Your task to perform on an android device: open a bookmark in the chrome app Image 0: 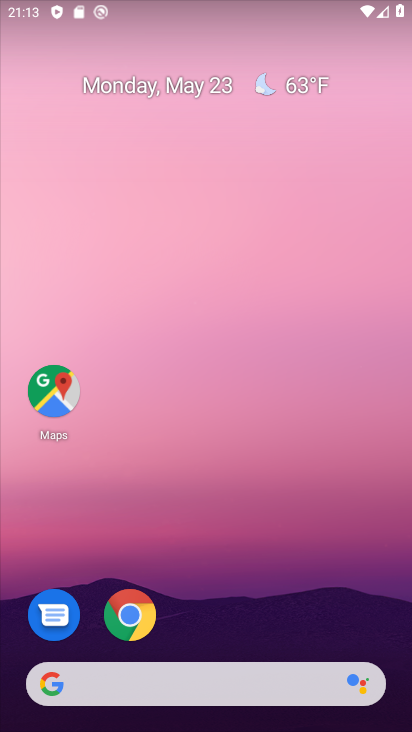
Step 0: click (135, 615)
Your task to perform on an android device: open a bookmark in the chrome app Image 1: 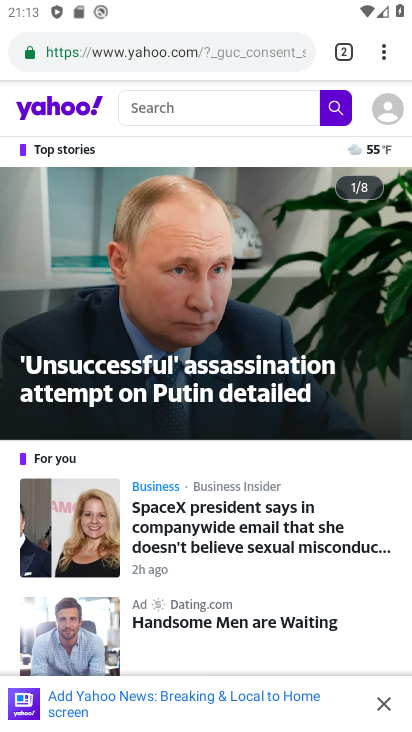
Step 1: click (373, 56)
Your task to perform on an android device: open a bookmark in the chrome app Image 2: 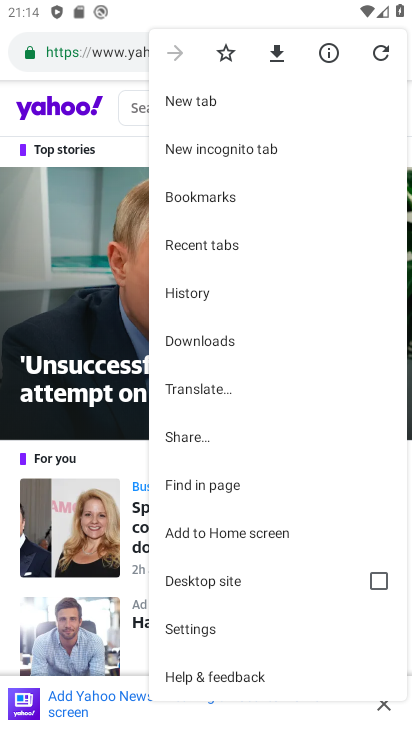
Step 2: click (204, 623)
Your task to perform on an android device: open a bookmark in the chrome app Image 3: 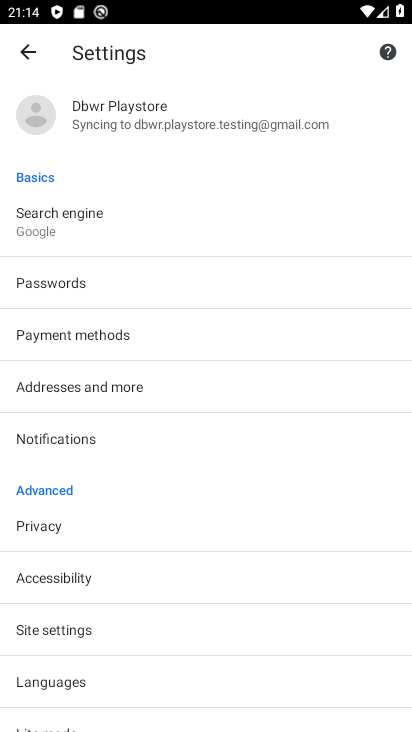
Step 3: press back button
Your task to perform on an android device: open a bookmark in the chrome app Image 4: 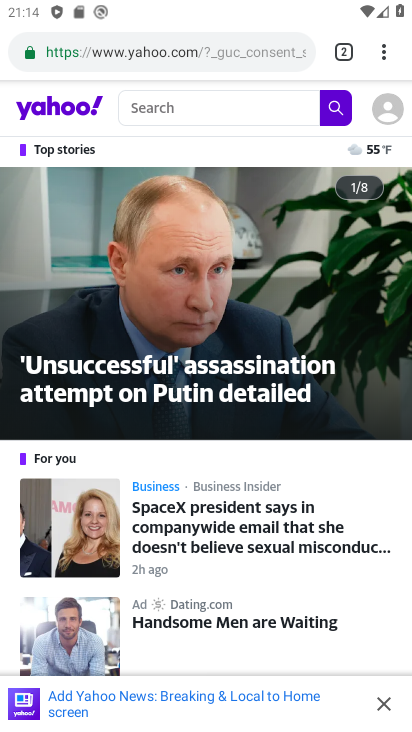
Step 4: click (378, 54)
Your task to perform on an android device: open a bookmark in the chrome app Image 5: 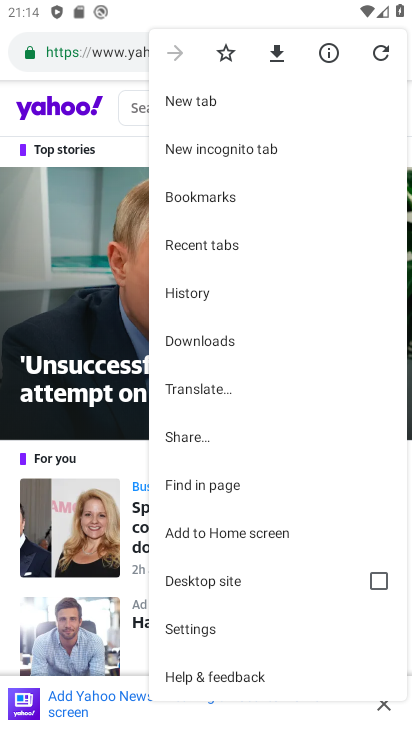
Step 5: click (227, 193)
Your task to perform on an android device: open a bookmark in the chrome app Image 6: 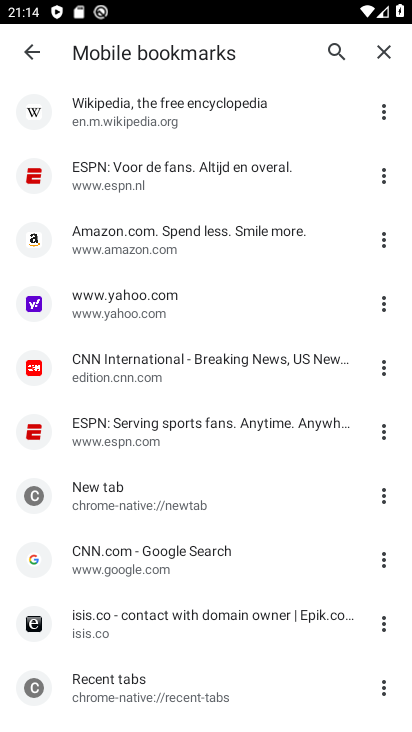
Step 6: click (125, 303)
Your task to perform on an android device: open a bookmark in the chrome app Image 7: 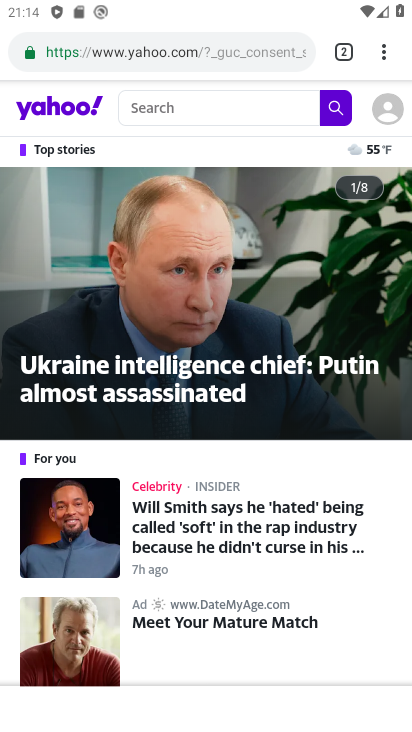
Step 7: task complete